Your task to perform on an android device: toggle priority inbox in the gmail app Image 0: 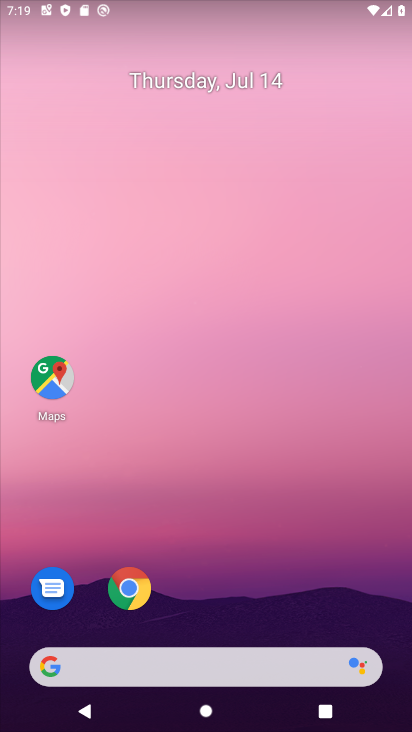
Step 0: drag from (385, 635) to (296, 17)
Your task to perform on an android device: toggle priority inbox in the gmail app Image 1: 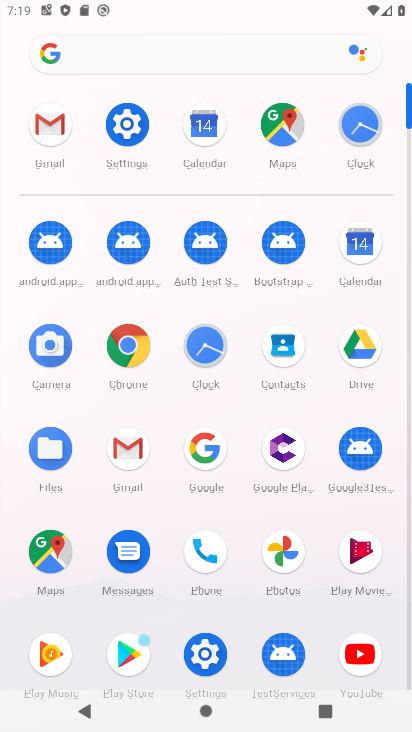
Step 1: click (132, 467)
Your task to perform on an android device: toggle priority inbox in the gmail app Image 2: 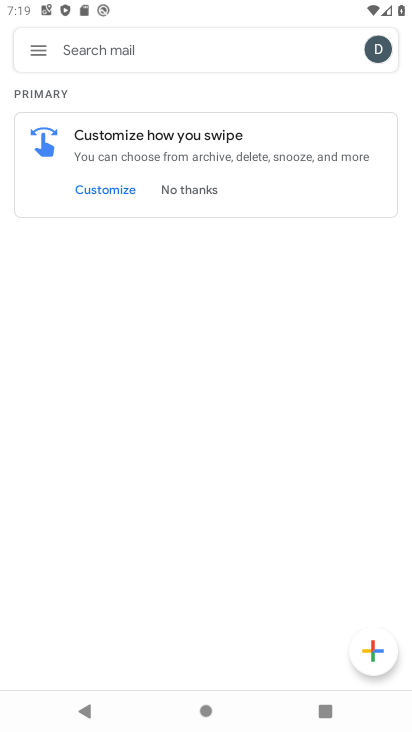
Step 2: click (38, 59)
Your task to perform on an android device: toggle priority inbox in the gmail app Image 3: 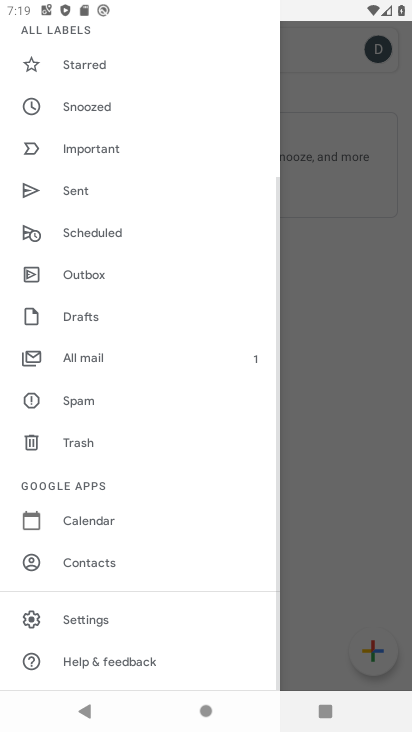
Step 3: click (76, 629)
Your task to perform on an android device: toggle priority inbox in the gmail app Image 4: 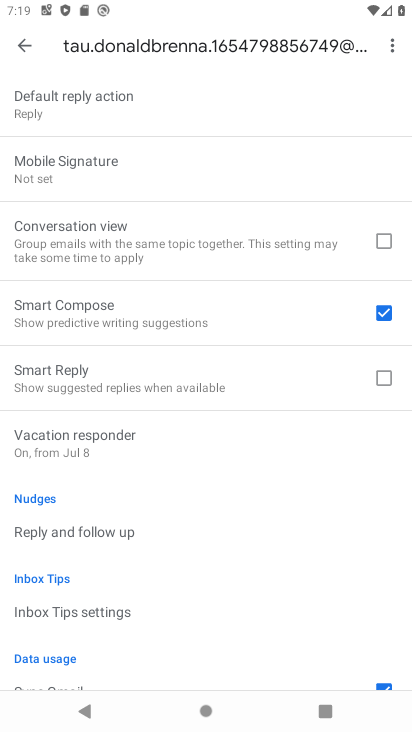
Step 4: drag from (88, 194) to (132, 728)
Your task to perform on an android device: toggle priority inbox in the gmail app Image 5: 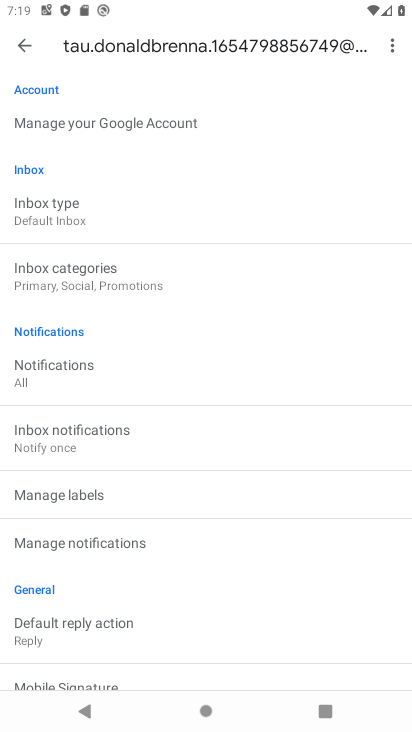
Step 5: click (67, 227)
Your task to perform on an android device: toggle priority inbox in the gmail app Image 6: 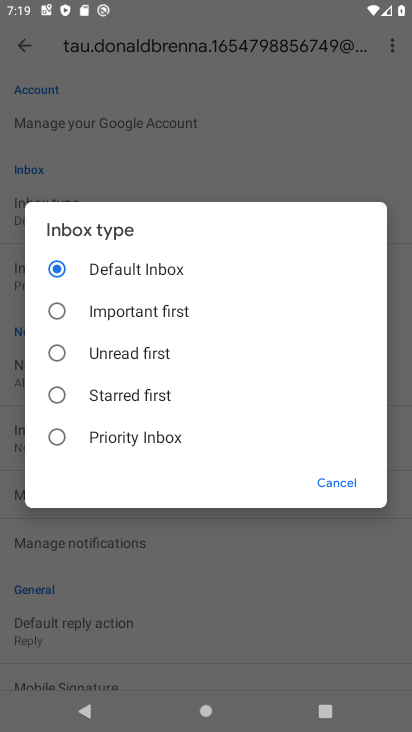
Step 6: click (56, 391)
Your task to perform on an android device: toggle priority inbox in the gmail app Image 7: 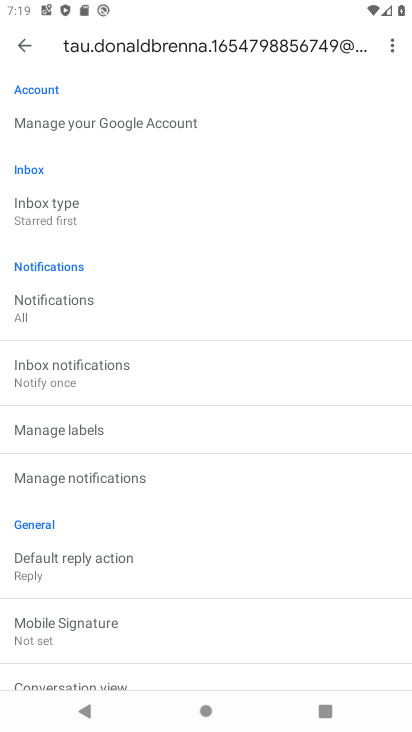
Step 7: task complete